Your task to perform on an android device: delete a single message in the gmail app Image 0: 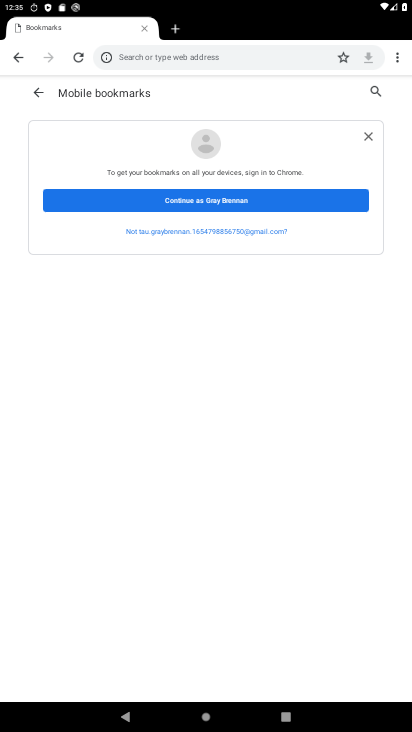
Step 0: press home button
Your task to perform on an android device: delete a single message in the gmail app Image 1: 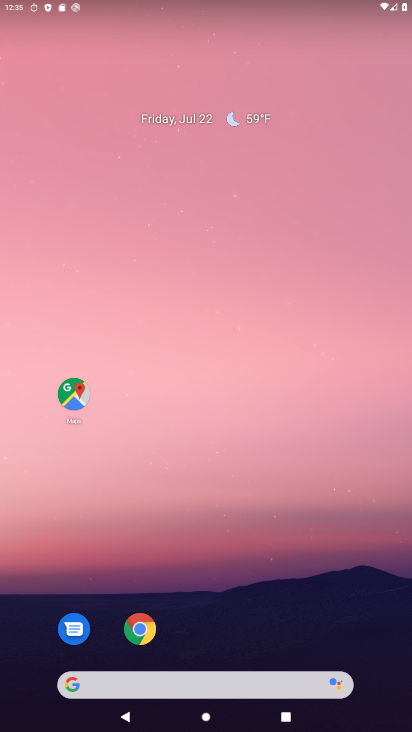
Step 1: drag from (120, 680) to (326, 2)
Your task to perform on an android device: delete a single message in the gmail app Image 2: 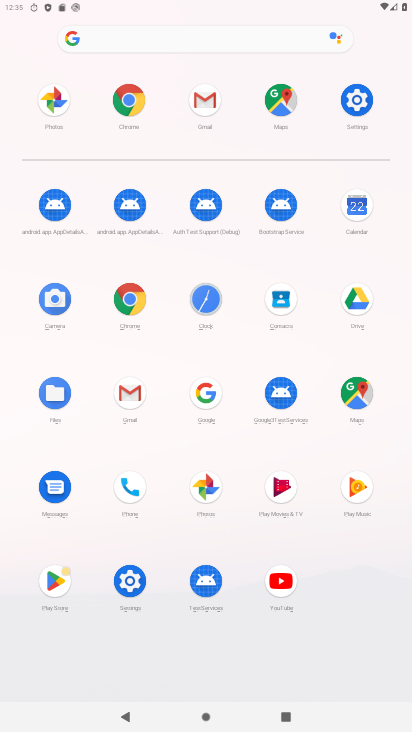
Step 2: click (127, 396)
Your task to perform on an android device: delete a single message in the gmail app Image 3: 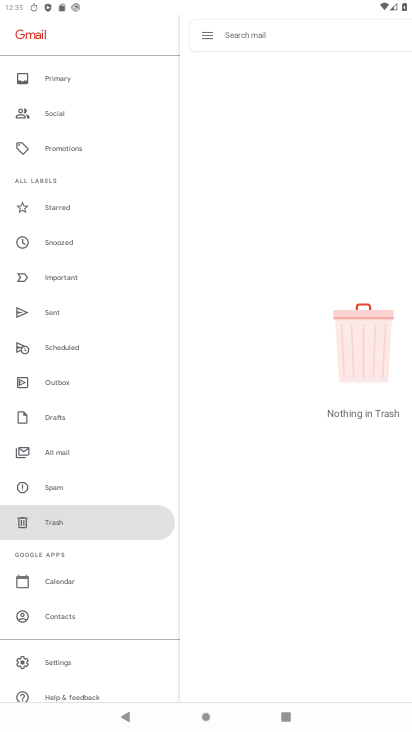
Step 3: click (58, 82)
Your task to perform on an android device: delete a single message in the gmail app Image 4: 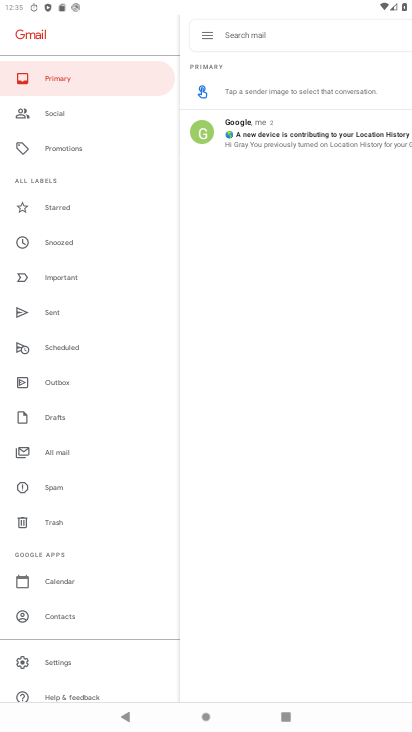
Step 4: click (304, 125)
Your task to perform on an android device: delete a single message in the gmail app Image 5: 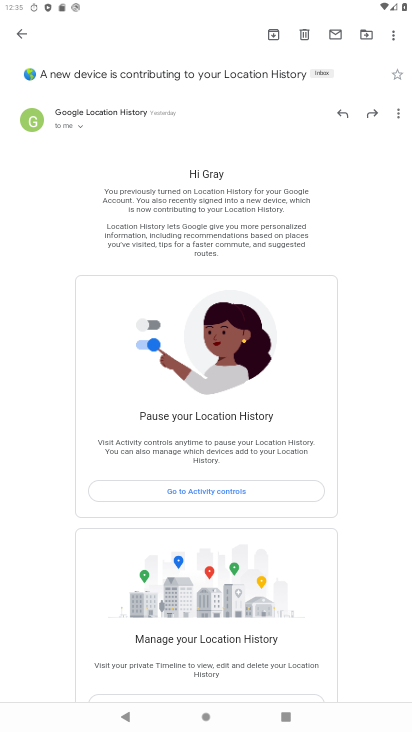
Step 5: click (303, 34)
Your task to perform on an android device: delete a single message in the gmail app Image 6: 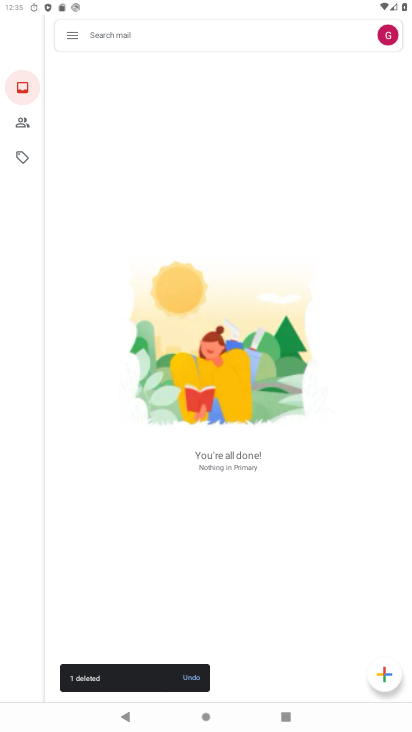
Step 6: task complete